Your task to perform on an android device: search for accent chairs on article.com Image 0: 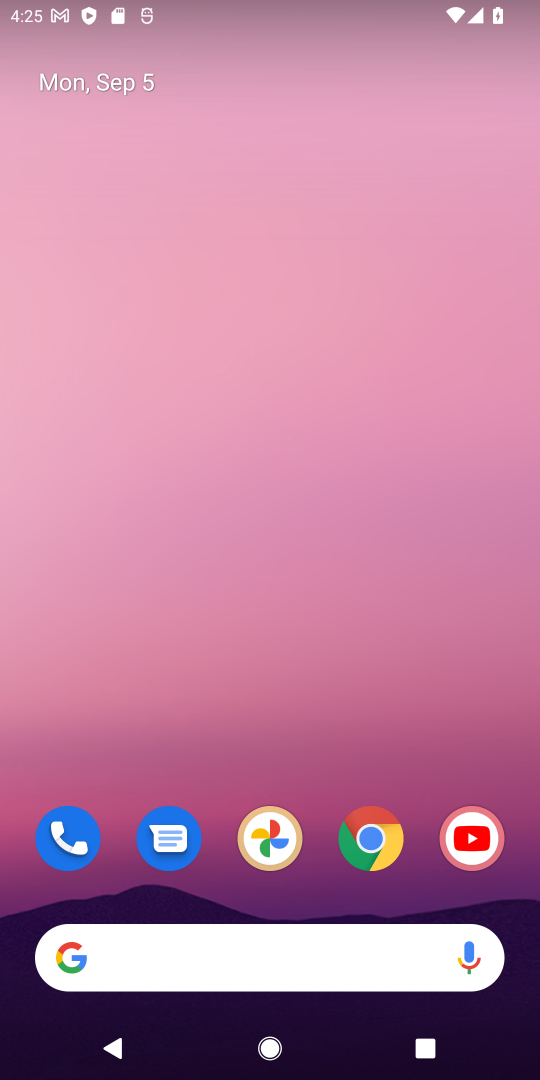
Step 0: drag from (360, 774) to (34, 817)
Your task to perform on an android device: search for accent chairs on article.com Image 1: 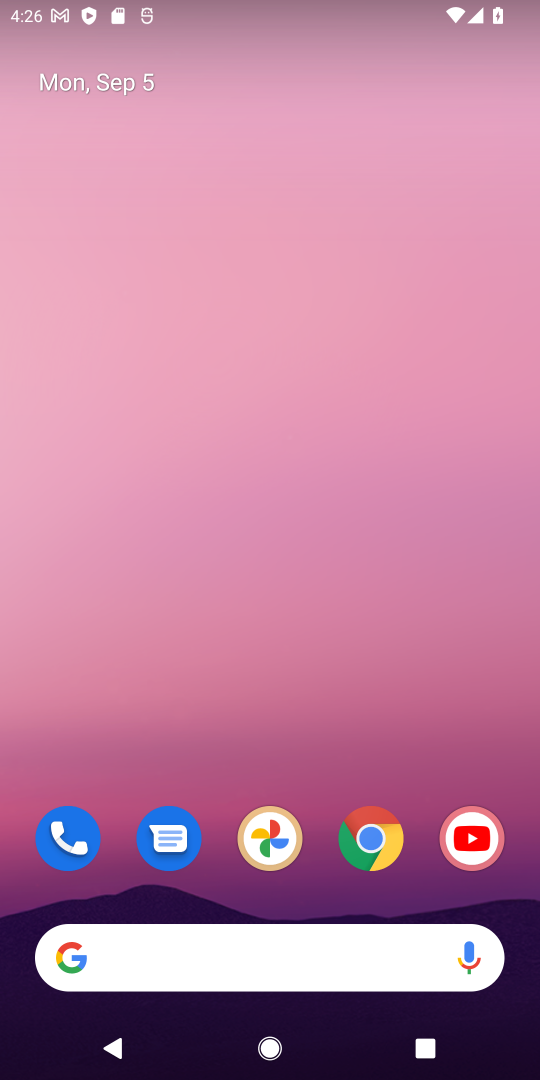
Step 1: click (374, 846)
Your task to perform on an android device: search for accent chairs on article.com Image 2: 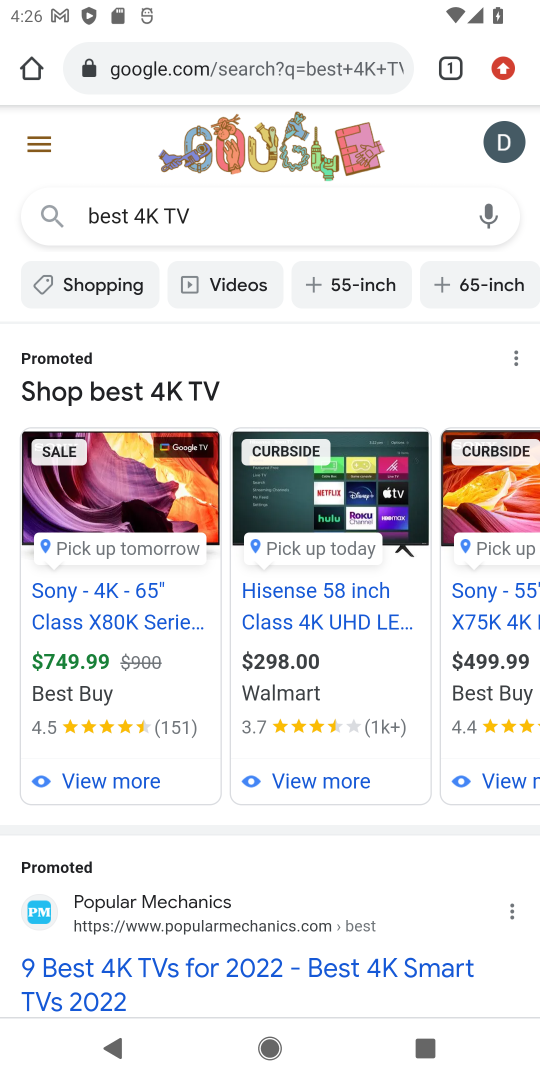
Step 2: click (282, 203)
Your task to perform on an android device: search for accent chairs on article.com Image 3: 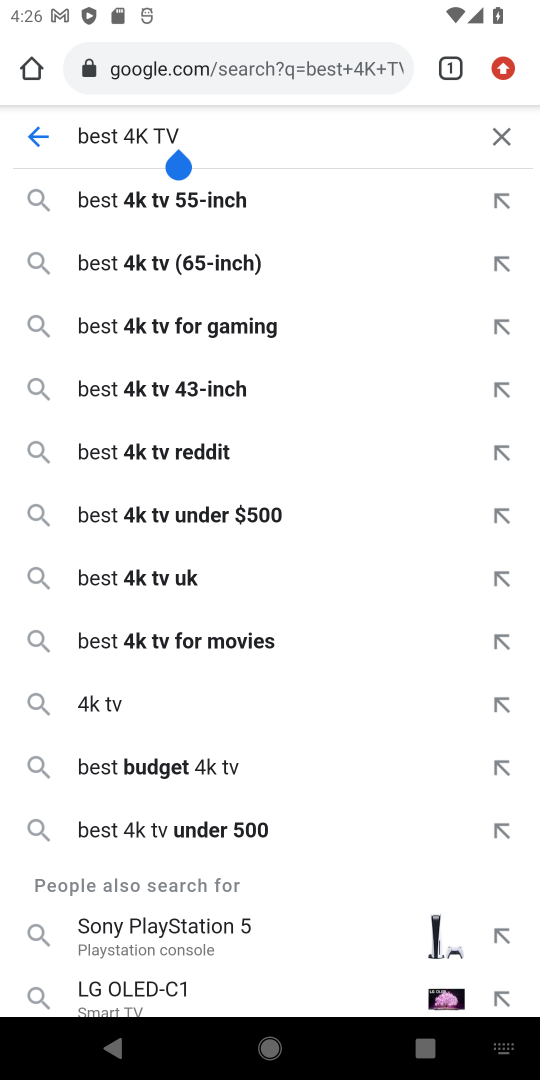
Step 3: click (506, 137)
Your task to perform on an android device: search for accent chairs on article.com Image 4: 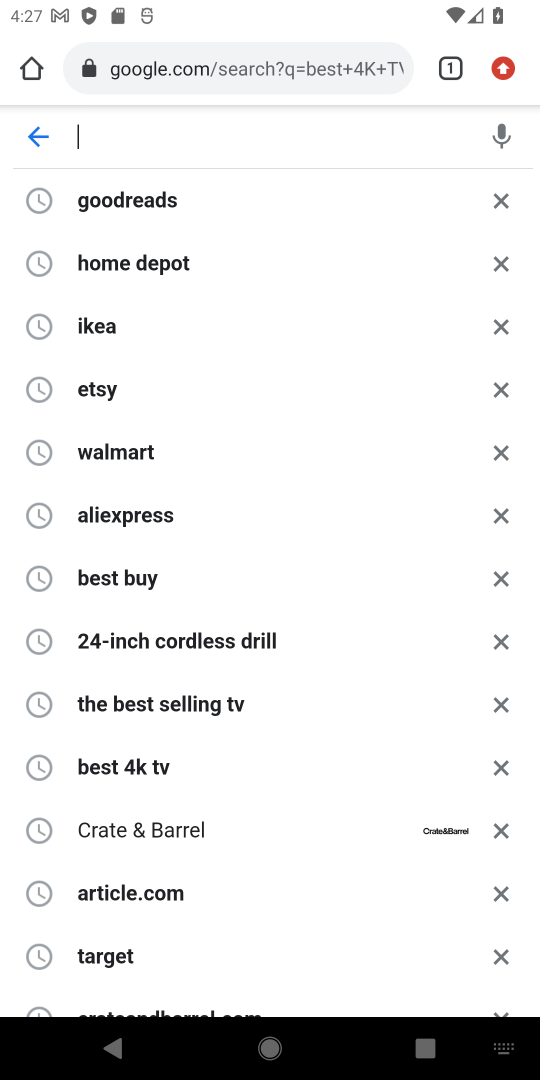
Step 4: type " article.com"
Your task to perform on an android device: search for accent chairs on article.com Image 5: 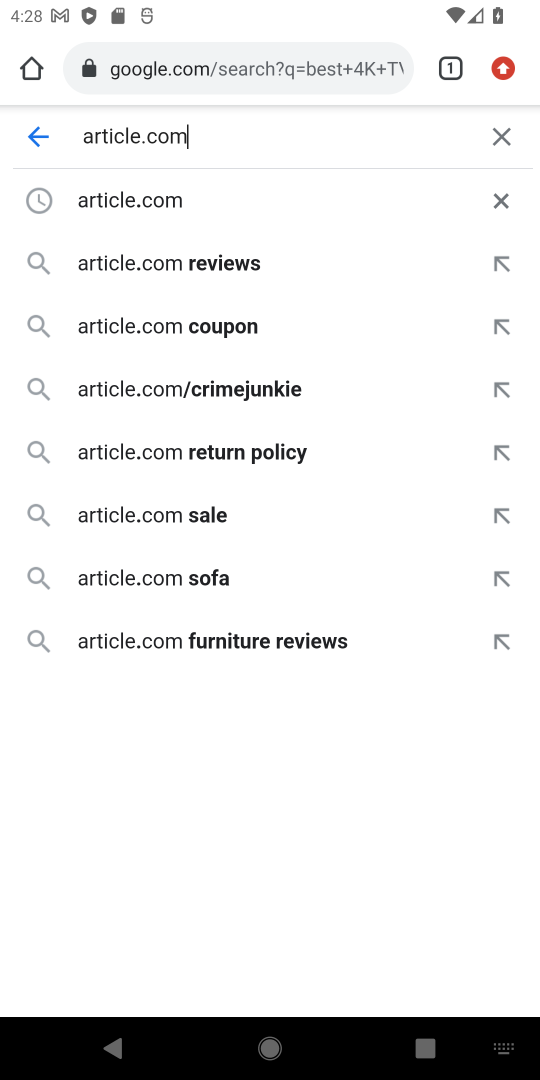
Step 5: click (137, 192)
Your task to perform on an android device: search for accent chairs on article.com Image 6: 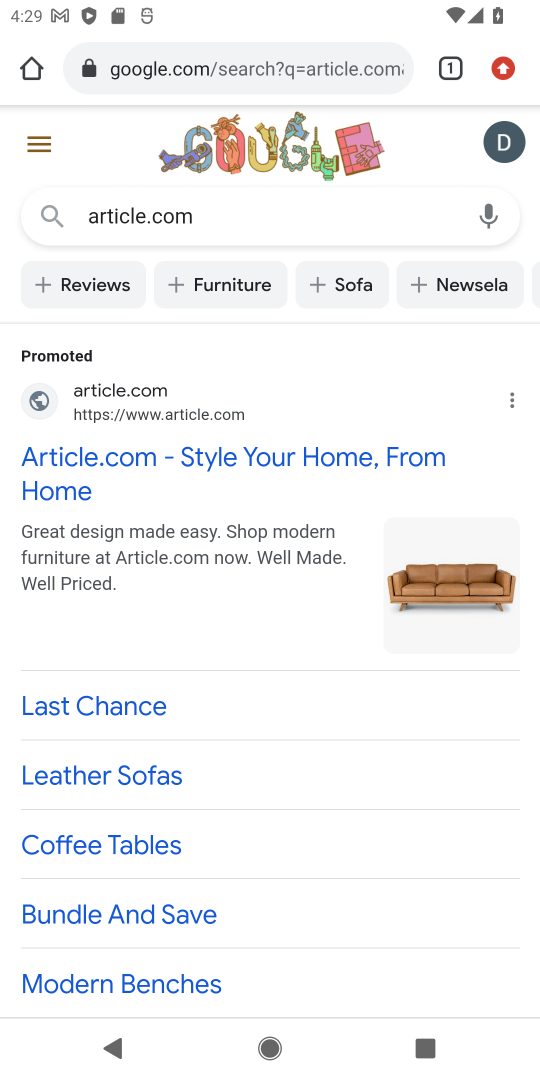
Step 6: click (139, 447)
Your task to perform on an android device: search for accent chairs on article.com Image 7: 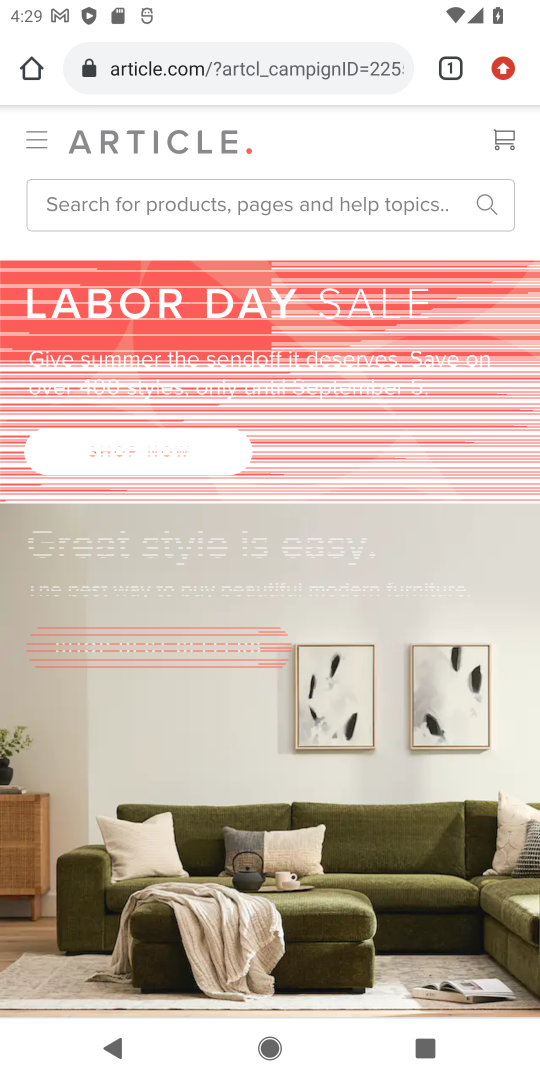
Step 7: click (85, 195)
Your task to perform on an android device: search for accent chairs on article.com Image 8: 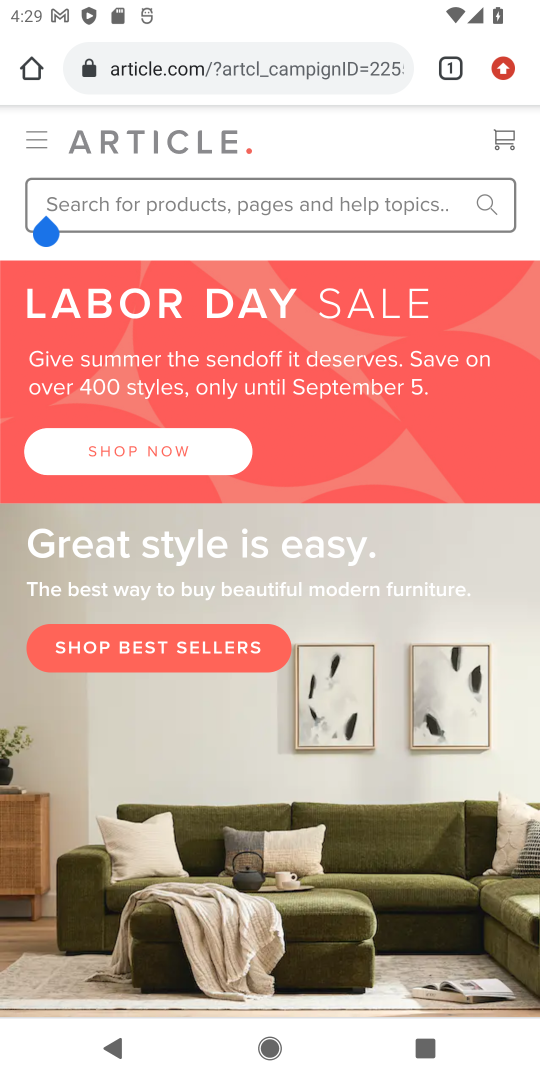
Step 8: type " accent chairs"
Your task to perform on an android device: search for accent chairs on article.com Image 9: 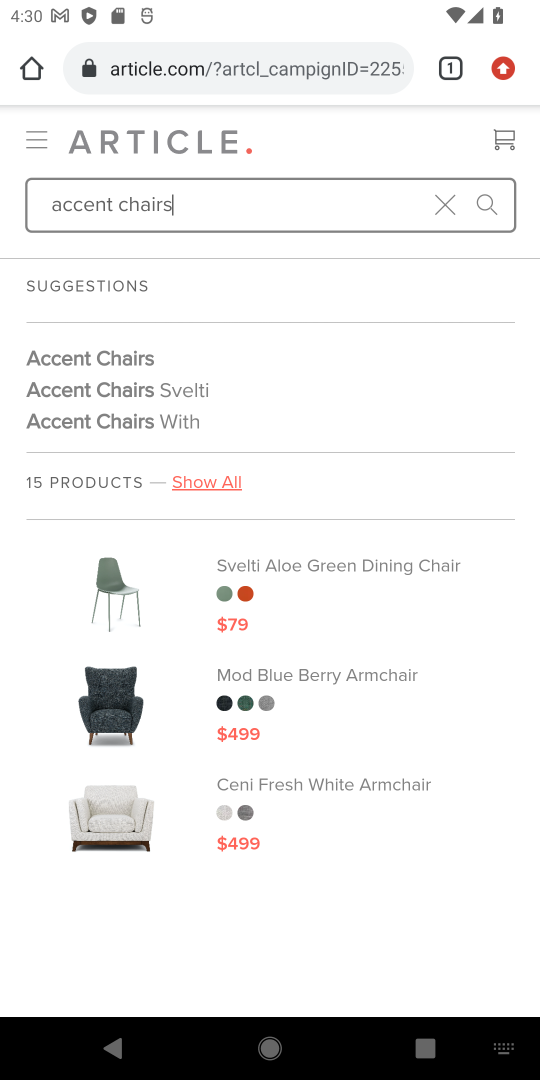
Step 9: click (96, 362)
Your task to perform on an android device: search for accent chairs on article.com Image 10: 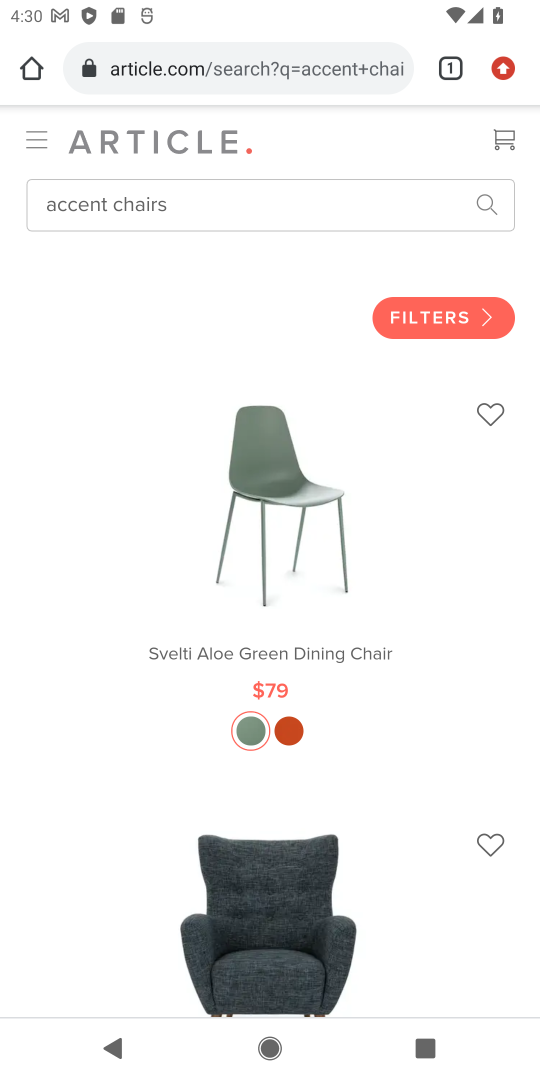
Step 10: task complete